Your task to perform on an android device: Open Google Chrome and open the bookmarks view Image 0: 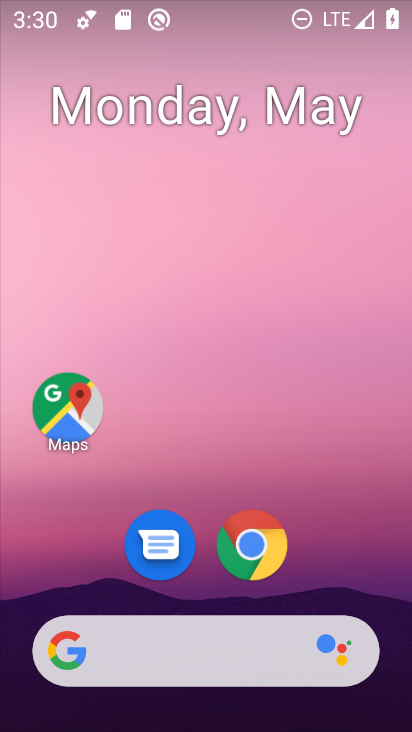
Step 0: click (254, 573)
Your task to perform on an android device: Open Google Chrome and open the bookmarks view Image 1: 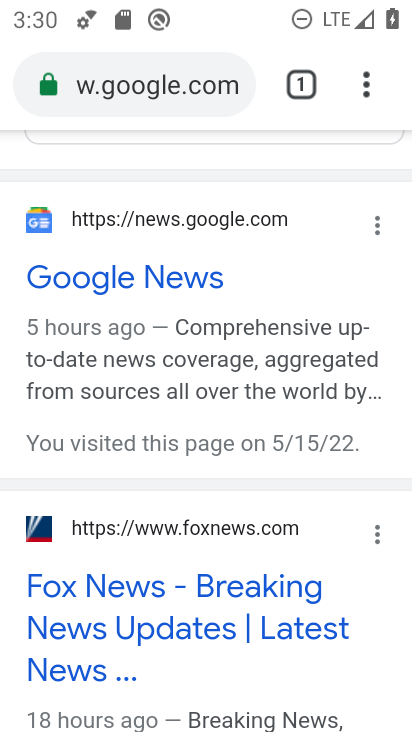
Step 1: drag from (375, 87) to (203, 318)
Your task to perform on an android device: Open Google Chrome and open the bookmarks view Image 2: 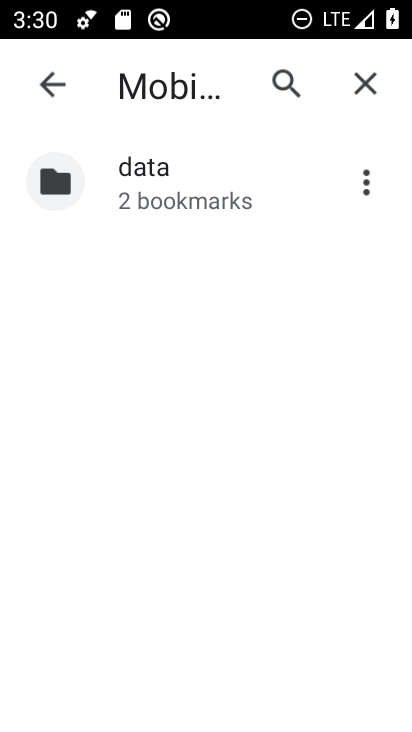
Step 2: click (260, 196)
Your task to perform on an android device: Open Google Chrome and open the bookmarks view Image 3: 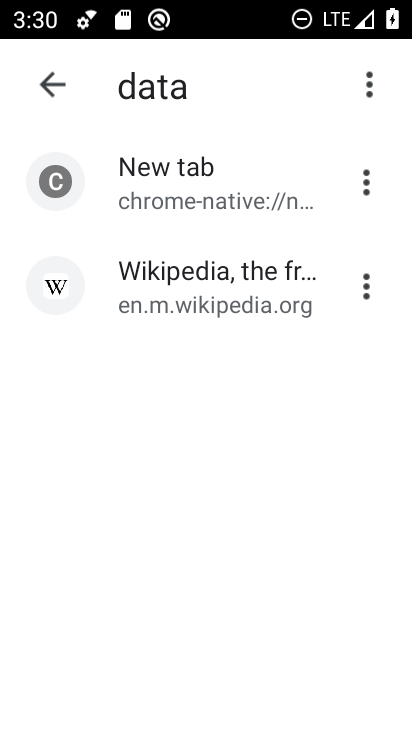
Step 3: task complete